Your task to perform on an android device: Open Yahoo.com Image 0: 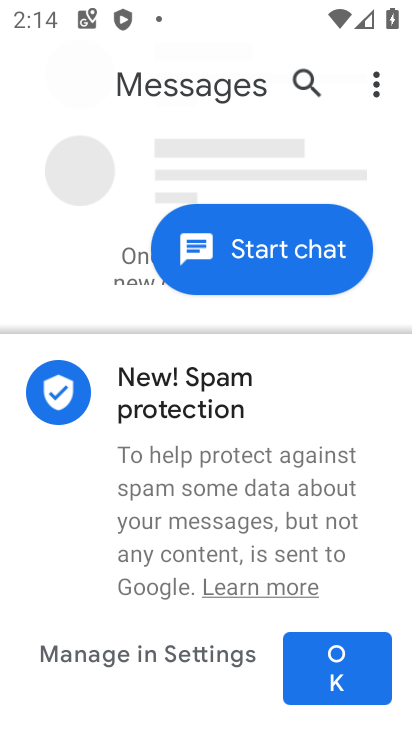
Step 0: press home button
Your task to perform on an android device: Open Yahoo.com Image 1: 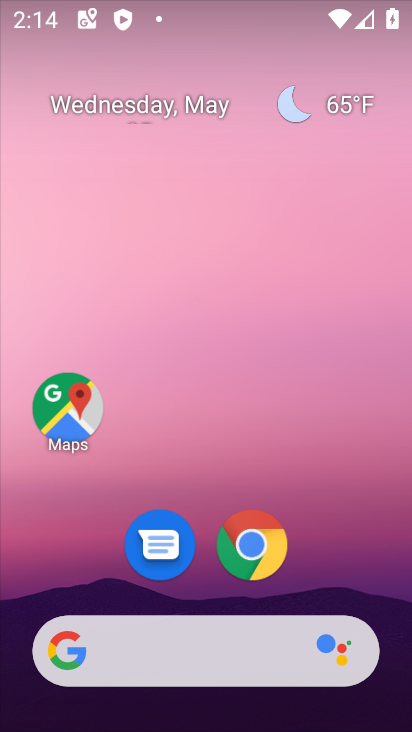
Step 1: click (267, 538)
Your task to perform on an android device: Open Yahoo.com Image 2: 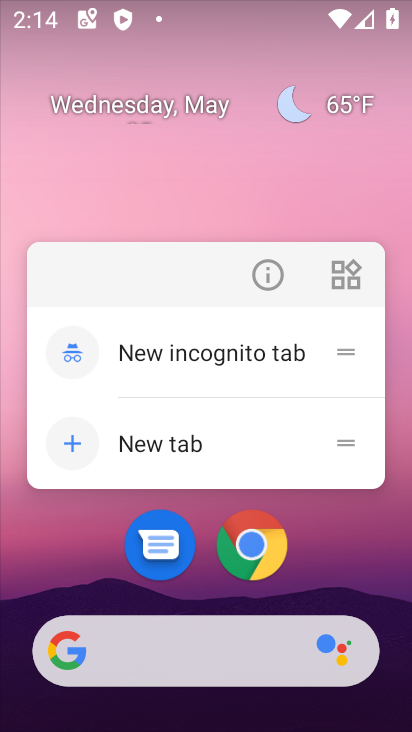
Step 2: click (254, 538)
Your task to perform on an android device: Open Yahoo.com Image 3: 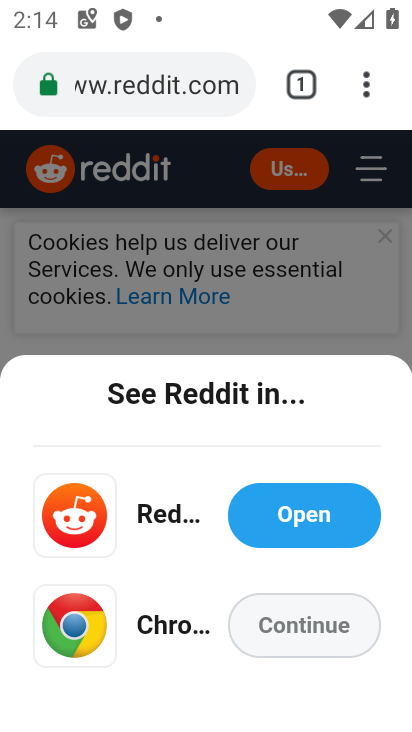
Step 3: click (304, 80)
Your task to perform on an android device: Open Yahoo.com Image 4: 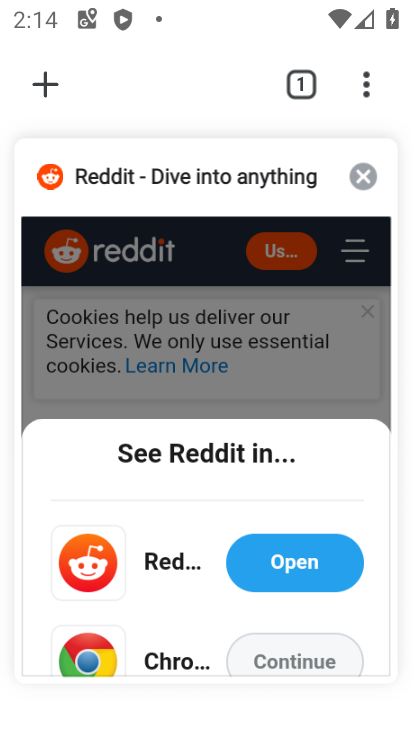
Step 4: click (53, 83)
Your task to perform on an android device: Open Yahoo.com Image 5: 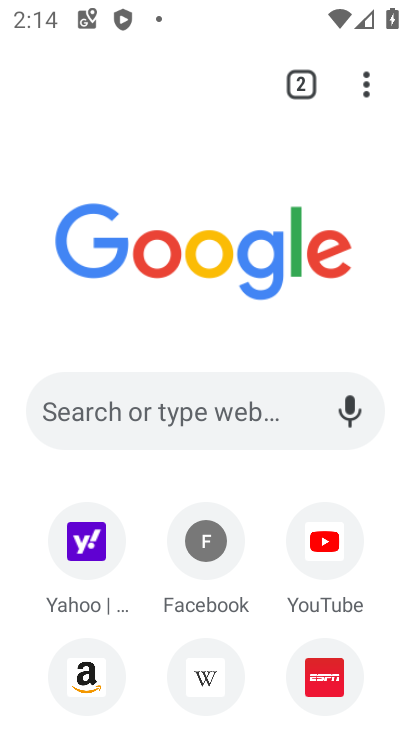
Step 5: click (69, 542)
Your task to perform on an android device: Open Yahoo.com Image 6: 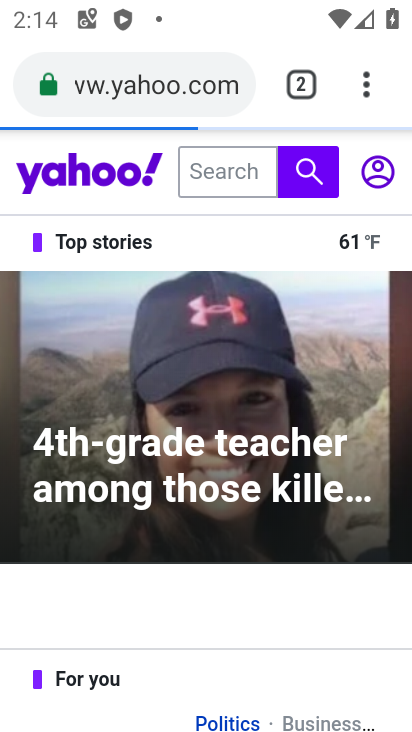
Step 6: task complete